Your task to perform on an android device: Open location settings Image 0: 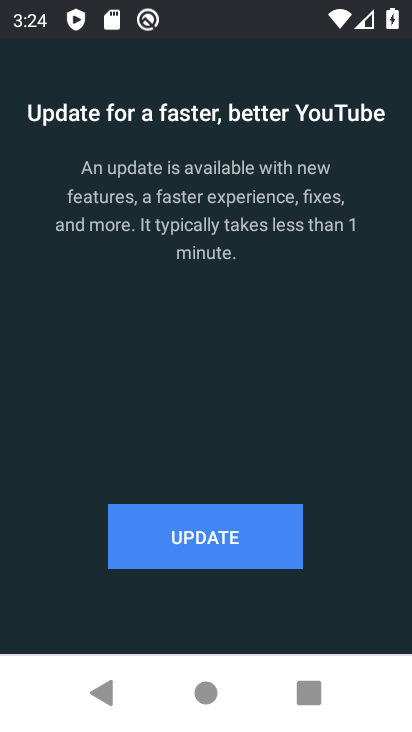
Step 0: press home button
Your task to perform on an android device: Open location settings Image 1: 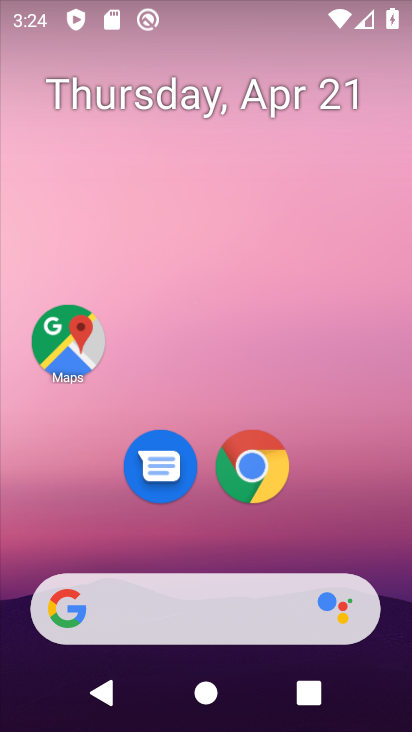
Step 1: drag from (213, 546) to (230, 154)
Your task to perform on an android device: Open location settings Image 2: 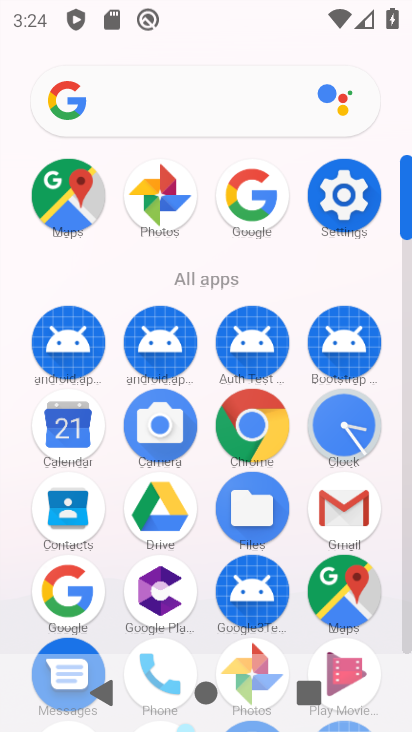
Step 2: click (335, 188)
Your task to perform on an android device: Open location settings Image 3: 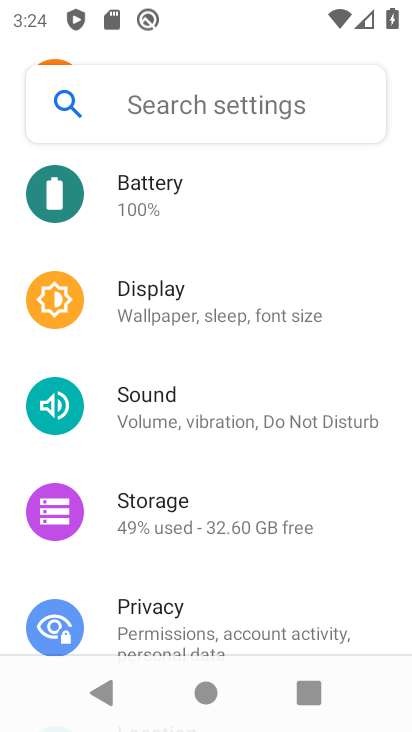
Step 3: drag from (207, 623) to (228, 264)
Your task to perform on an android device: Open location settings Image 4: 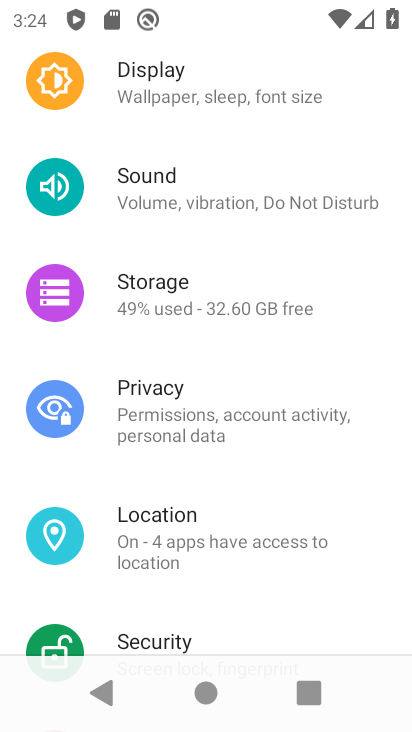
Step 4: click (165, 541)
Your task to perform on an android device: Open location settings Image 5: 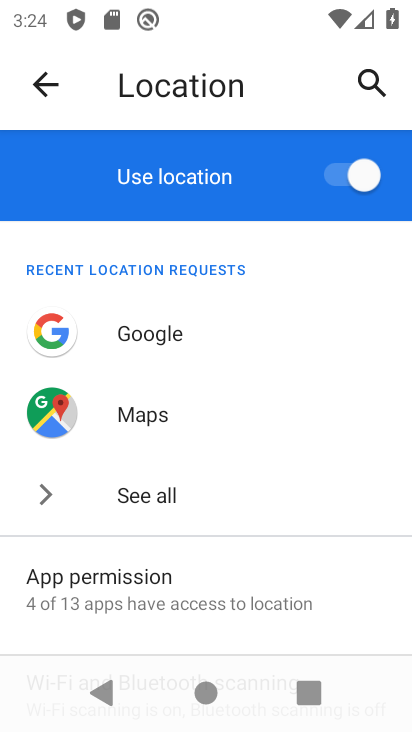
Step 5: task complete